Your task to perform on an android device: Go to wifi settings Image 0: 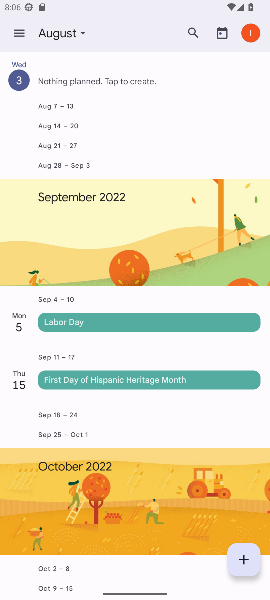
Step 0: press home button
Your task to perform on an android device: Go to wifi settings Image 1: 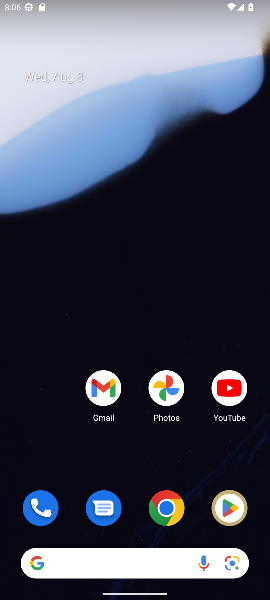
Step 1: drag from (143, 534) to (229, 507)
Your task to perform on an android device: Go to wifi settings Image 2: 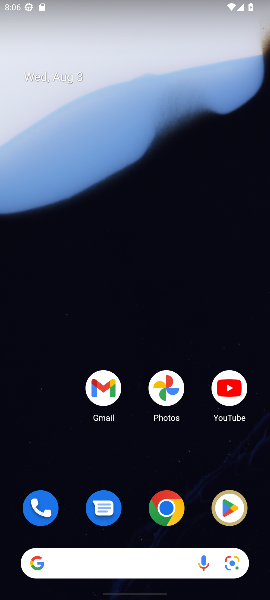
Step 2: click (169, 422)
Your task to perform on an android device: Go to wifi settings Image 3: 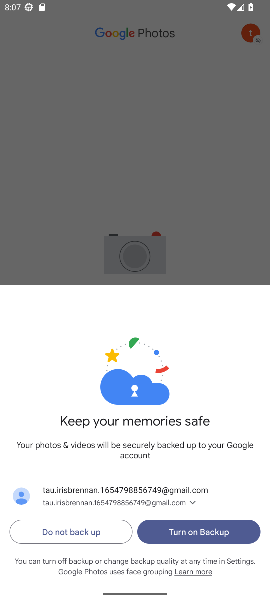
Step 3: press home button
Your task to perform on an android device: Go to wifi settings Image 4: 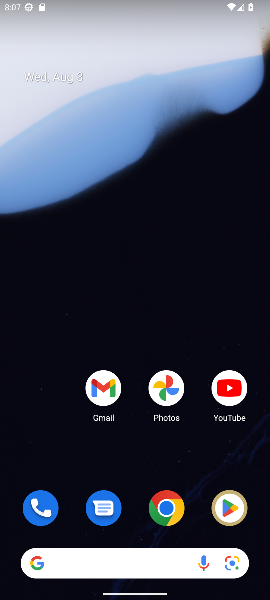
Step 4: drag from (118, 538) to (240, 326)
Your task to perform on an android device: Go to wifi settings Image 5: 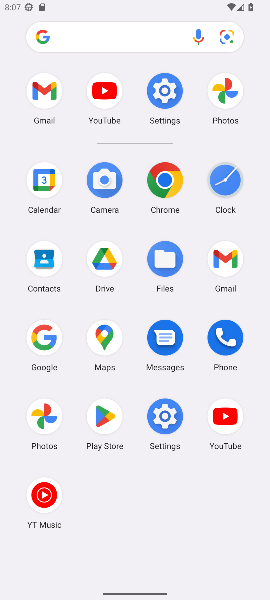
Step 5: click (166, 422)
Your task to perform on an android device: Go to wifi settings Image 6: 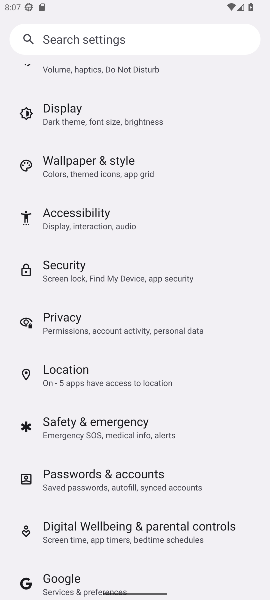
Step 6: drag from (80, 90) to (79, 493)
Your task to perform on an android device: Go to wifi settings Image 7: 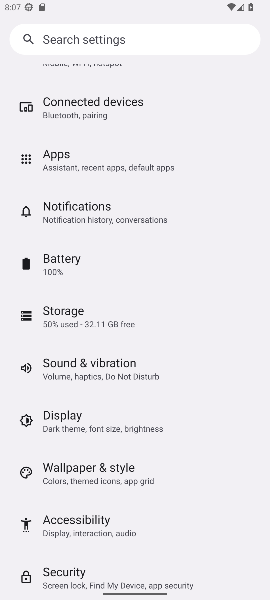
Step 7: drag from (70, 125) to (81, 452)
Your task to perform on an android device: Go to wifi settings Image 8: 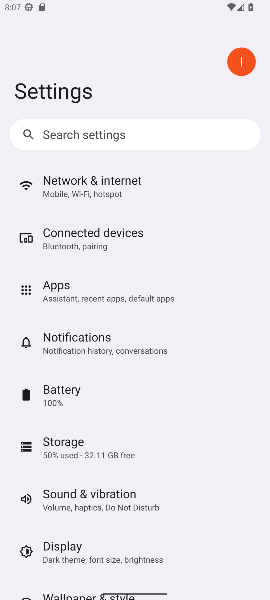
Step 8: click (74, 198)
Your task to perform on an android device: Go to wifi settings Image 9: 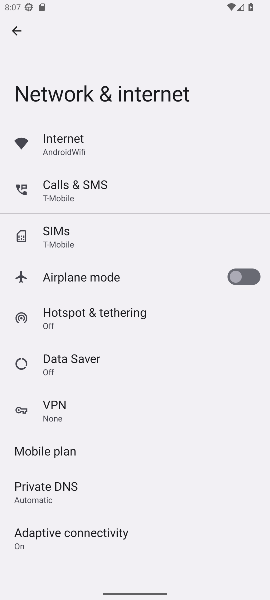
Step 9: task complete